Your task to perform on an android device: Open Google Chrome and open the bookmarks view Image 0: 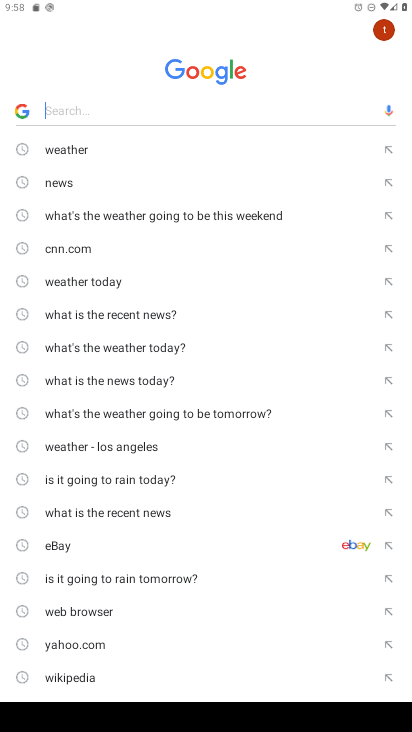
Step 0: press home button
Your task to perform on an android device: Open Google Chrome and open the bookmarks view Image 1: 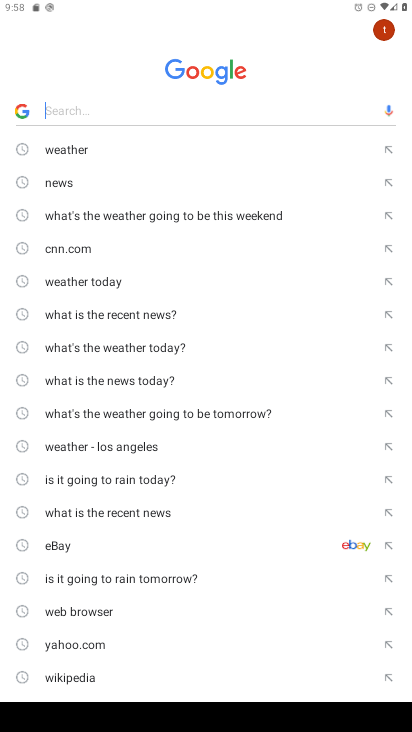
Step 1: press home button
Your task to perform on an android device: Open Google Chrome and open the bookmarks view Image 2: 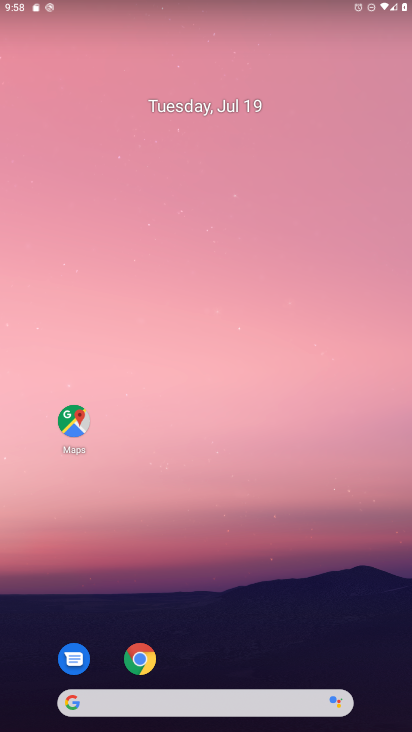
Step 2: drag from (213, 623) to (219, 279)
Your task to perform on an android device: Open Google Chrome and open the bookmarks view Image 3: 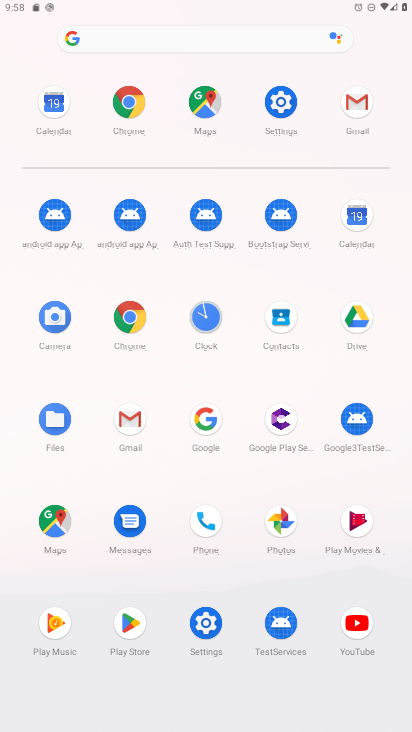
Step 3: click (118, 91)
Your task to perform on an android device: Open Google Chrome and open the bookmarks view Image 4: 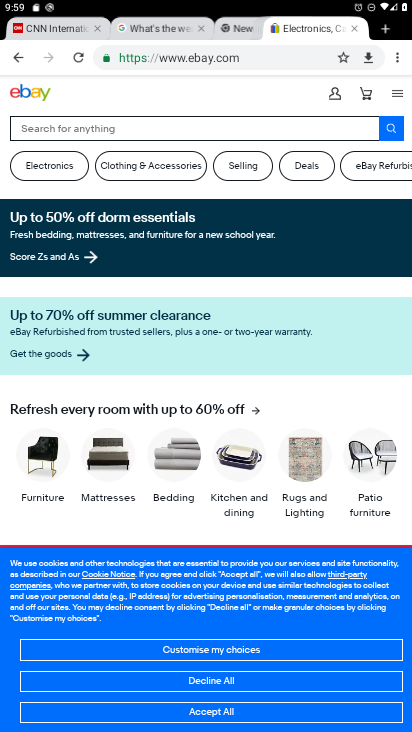
Step 4: click (394, 56)
Your task to perform on an android device: Open Google Chrome and open the bookmarks view Image 5: 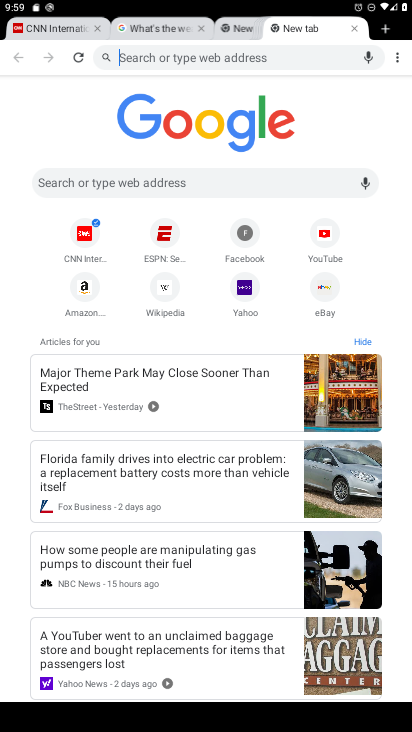
Step 5: click (407, 49)
Your task to perform on an android device: Open Google Chrome and open the bookmarks view Image 6: 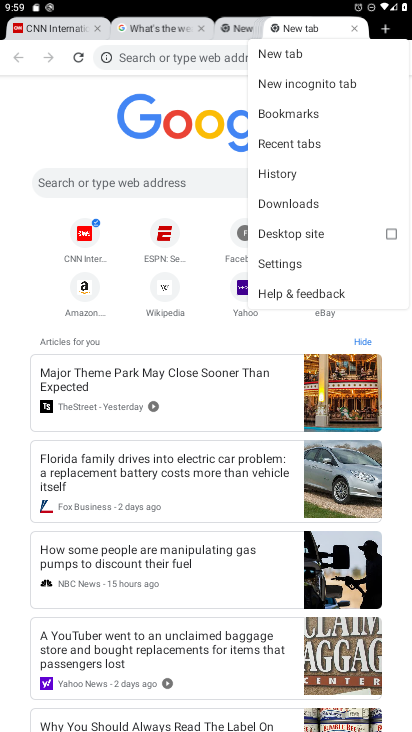
Step 6: click (305, 110)
Your task to perform on an android device: Open Google Chrome and open the bookmarks view Image 7: 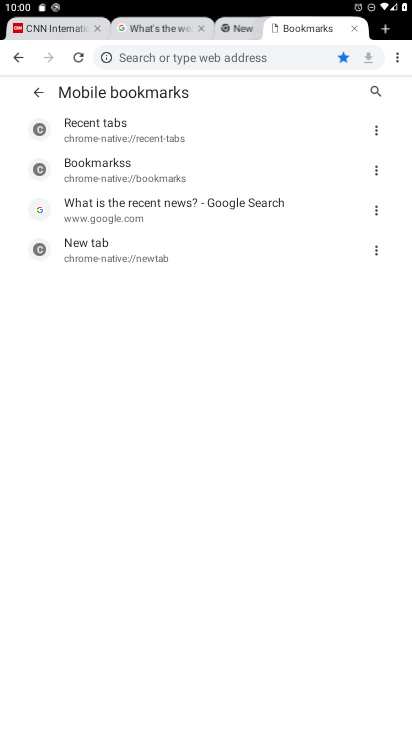
Step 7: task complete